Your task to perform on an android device: check android version Image 0: 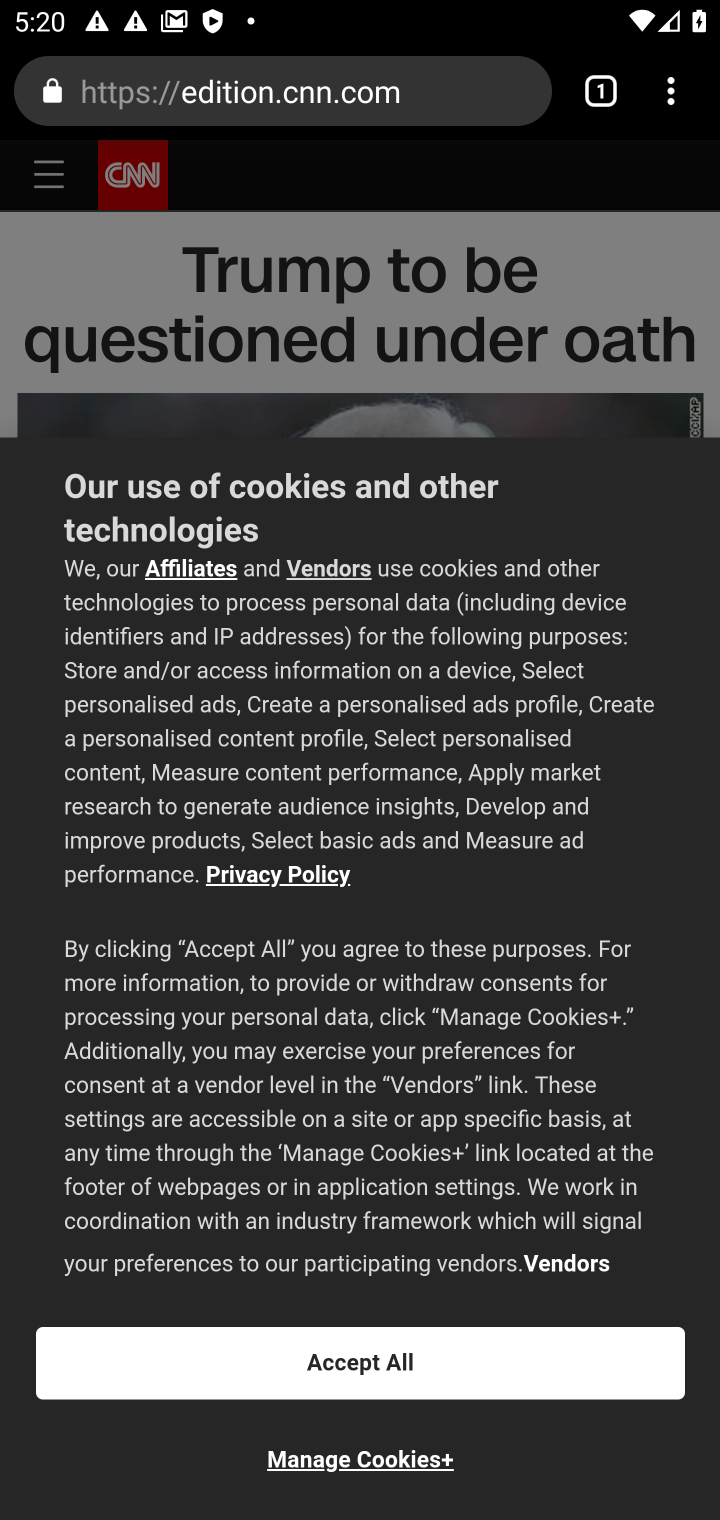
Step 0: press home button
Your task to perform on an android device: check android version Image 1: 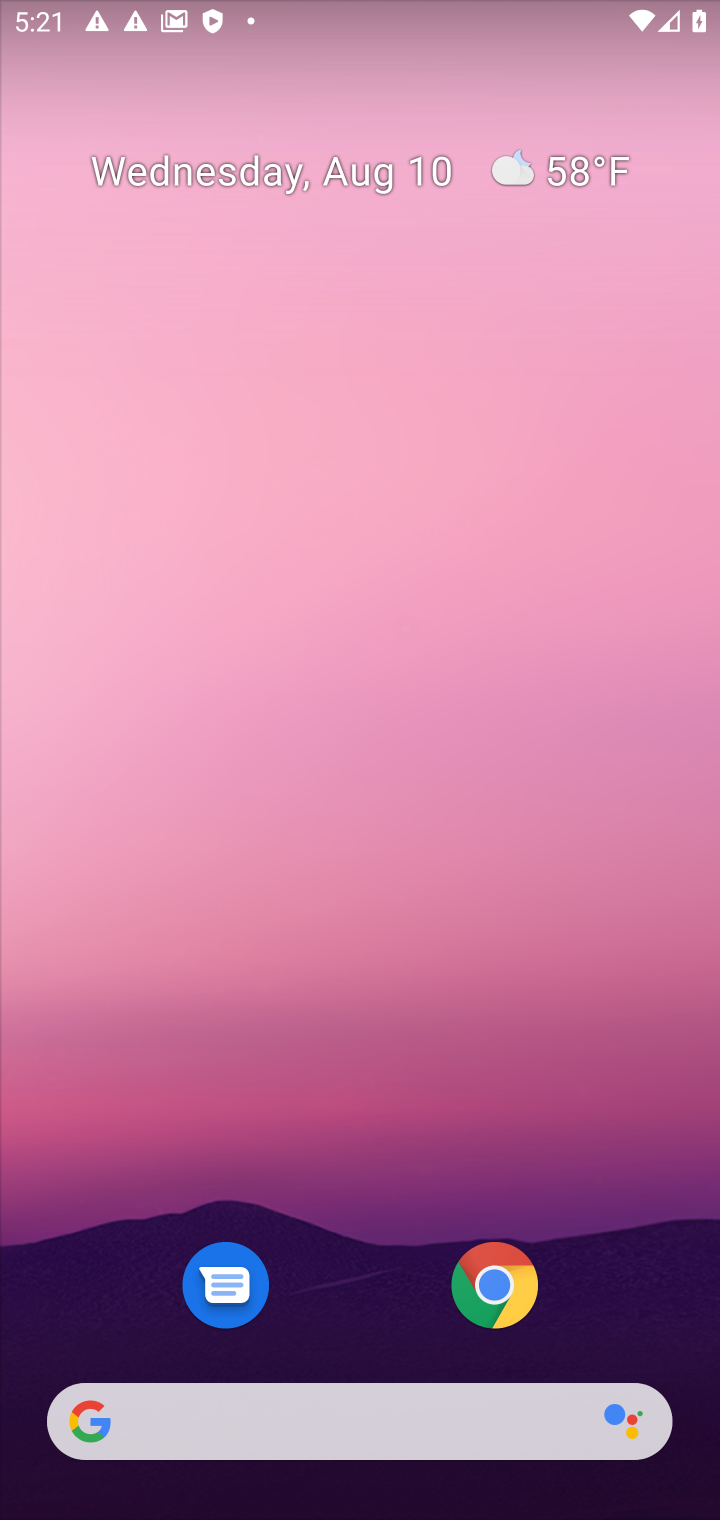
Step 1: press home button
Your task to perform on an android device: check android version Image 2: 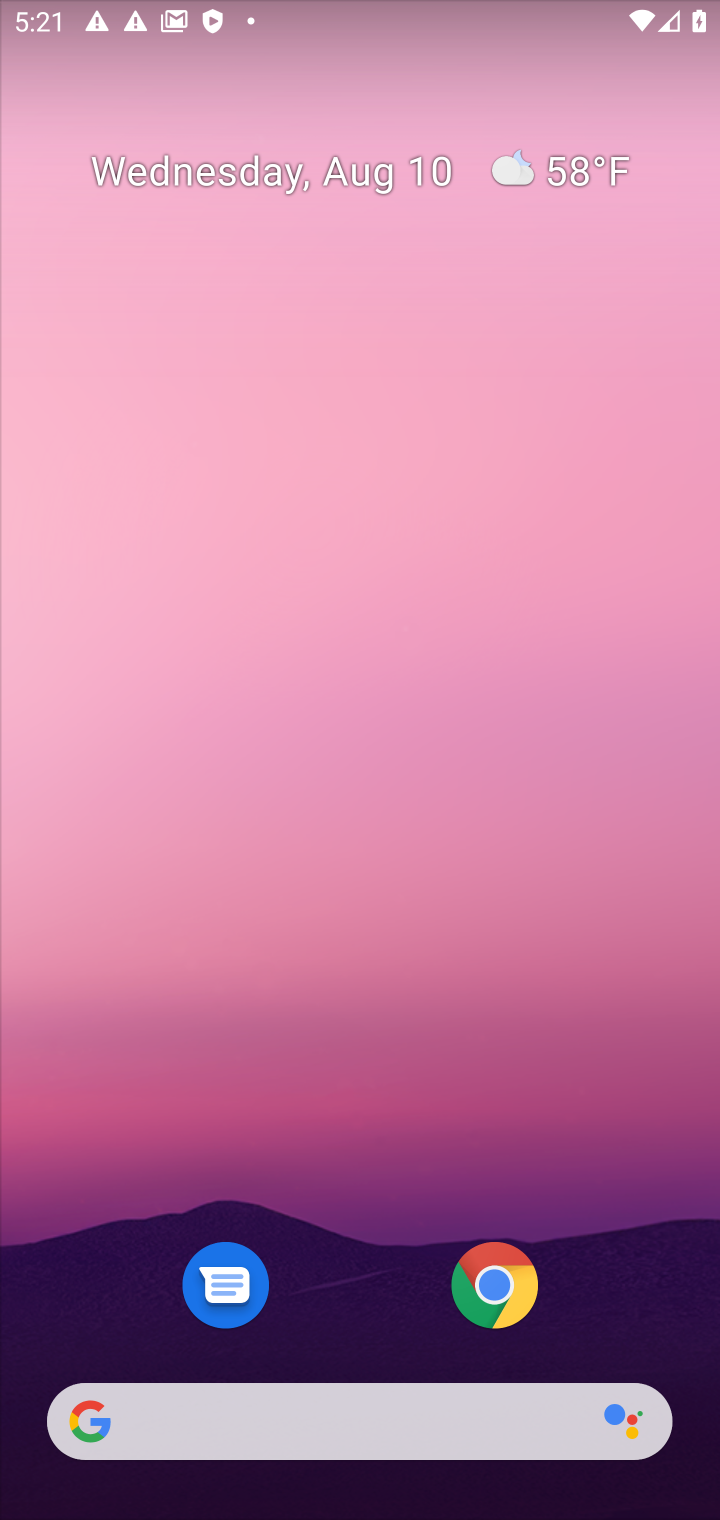
Step 2: drag from (364, 1211) to (431, 18)
Your task to perform on an android device: check android version Image 3: 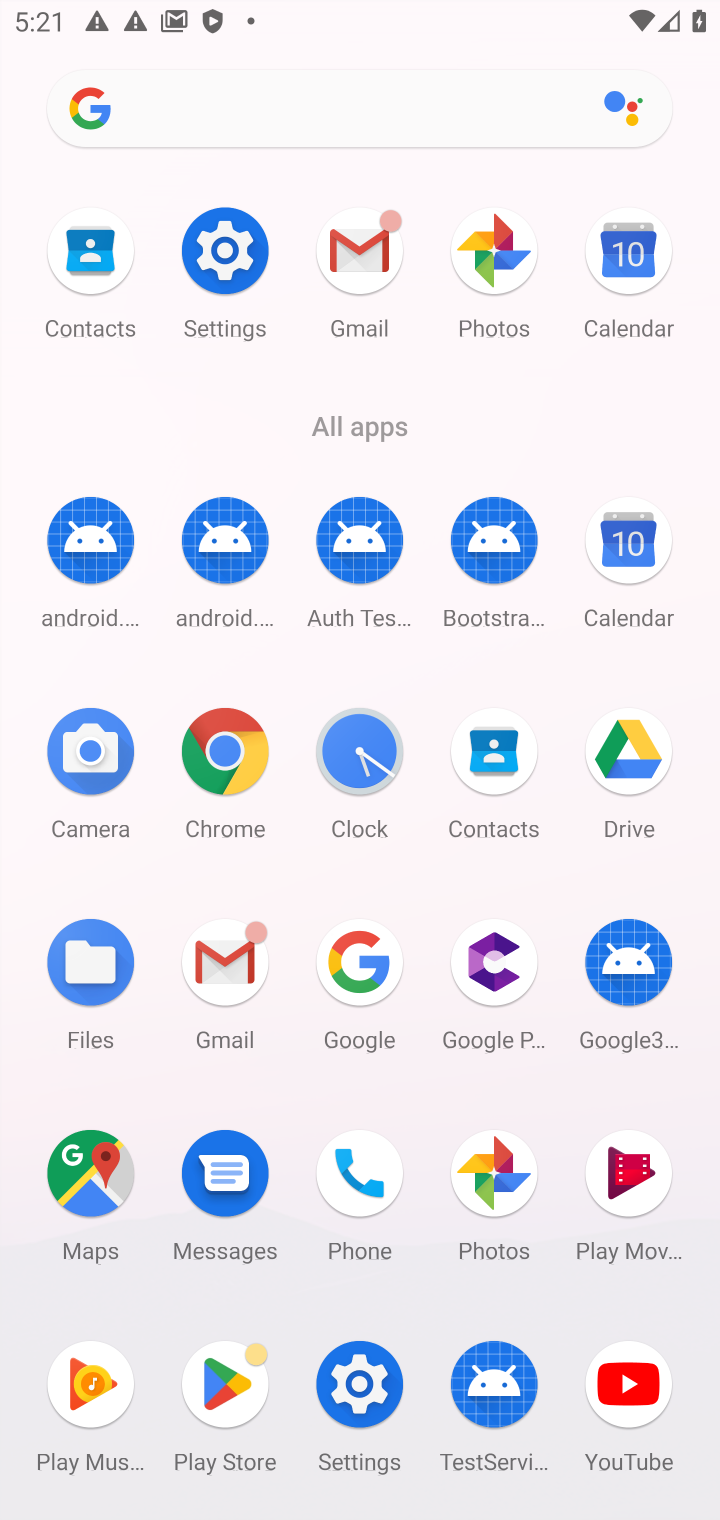
Step 3: click (391, 1354)
Your task to perform on an android device: check android version Image 4: 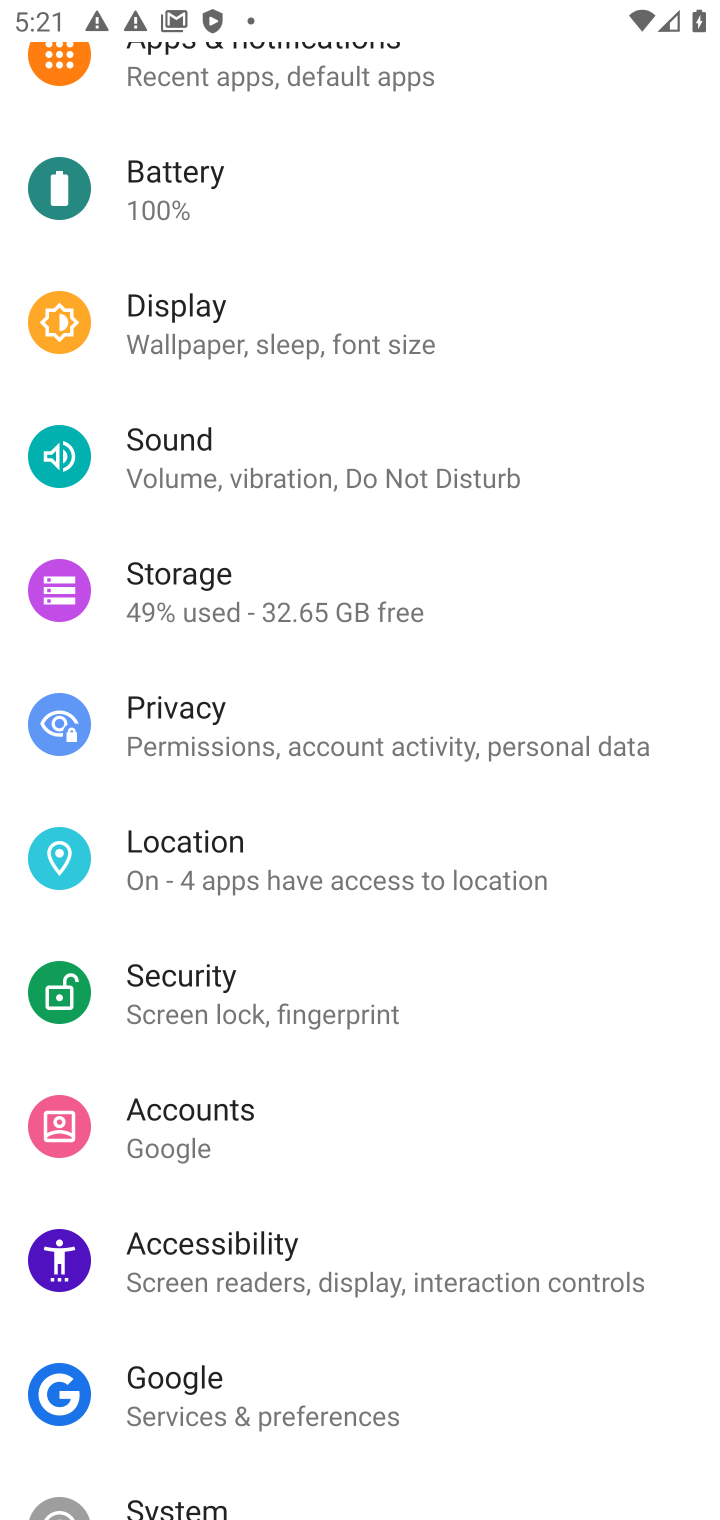
Step 4: drag from (303, 1245) to (311, 142)
Your task to perform on an android device: check android version Image 5: 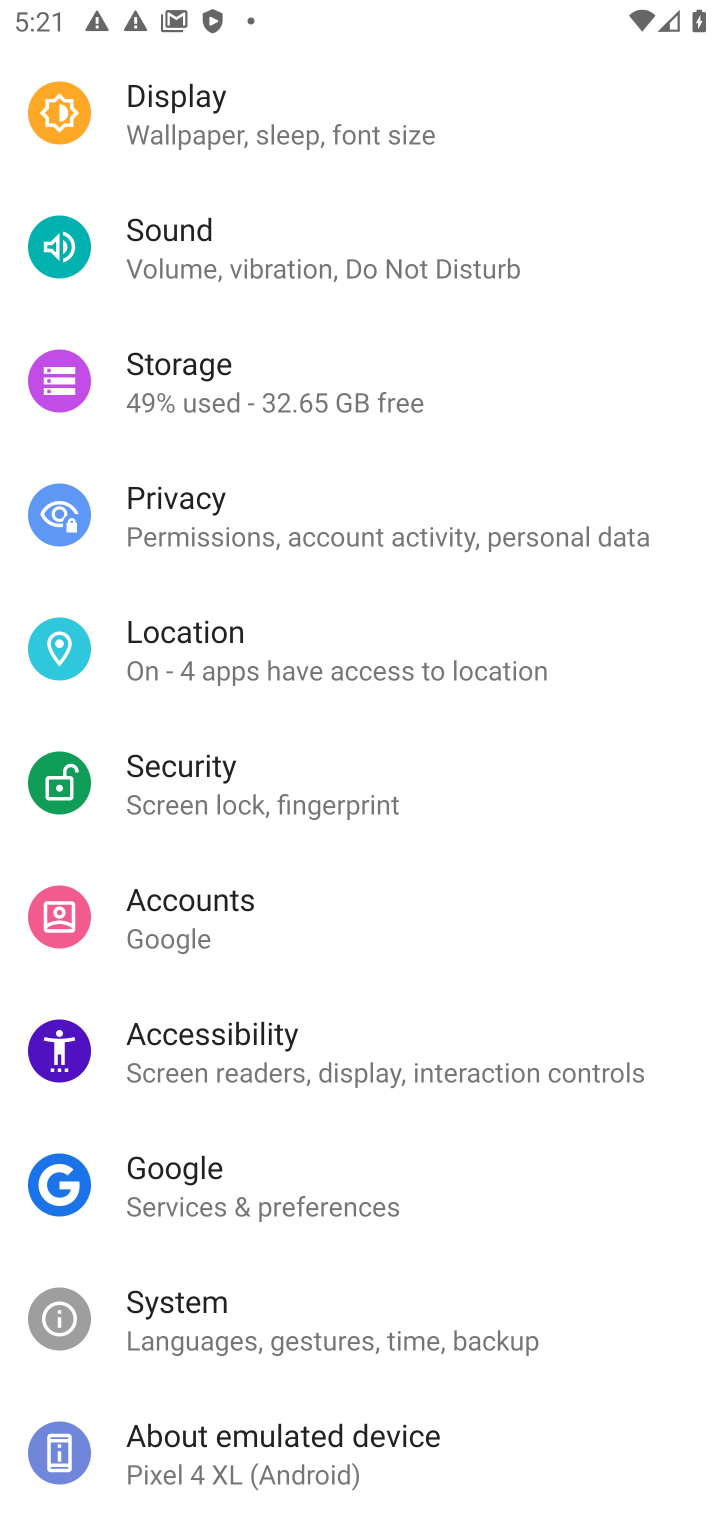
Step 5: click (332, 1440)
Your task to perform on an android device: check android version Image 6: 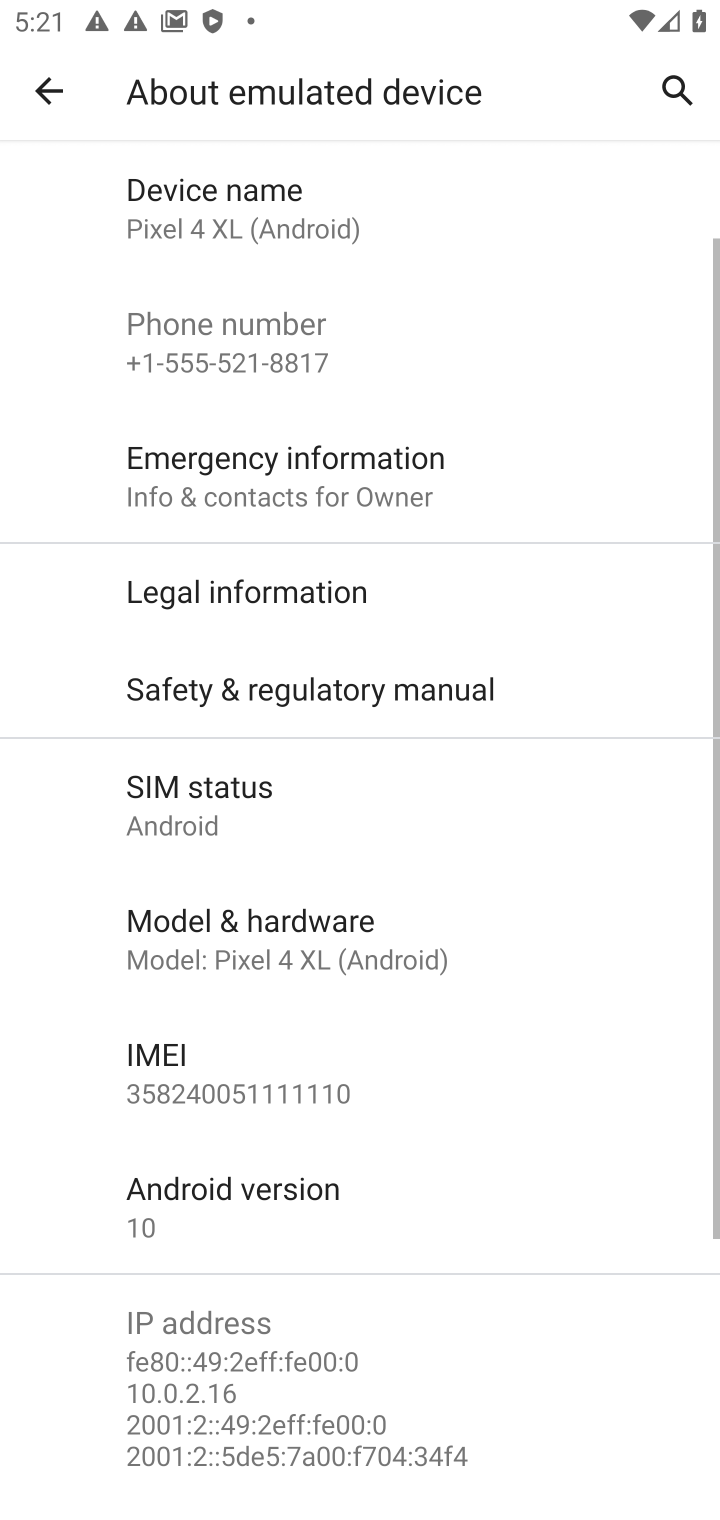
Step 6: click (194, 1218)
Your task to perform on an android device: check android version Image 7: 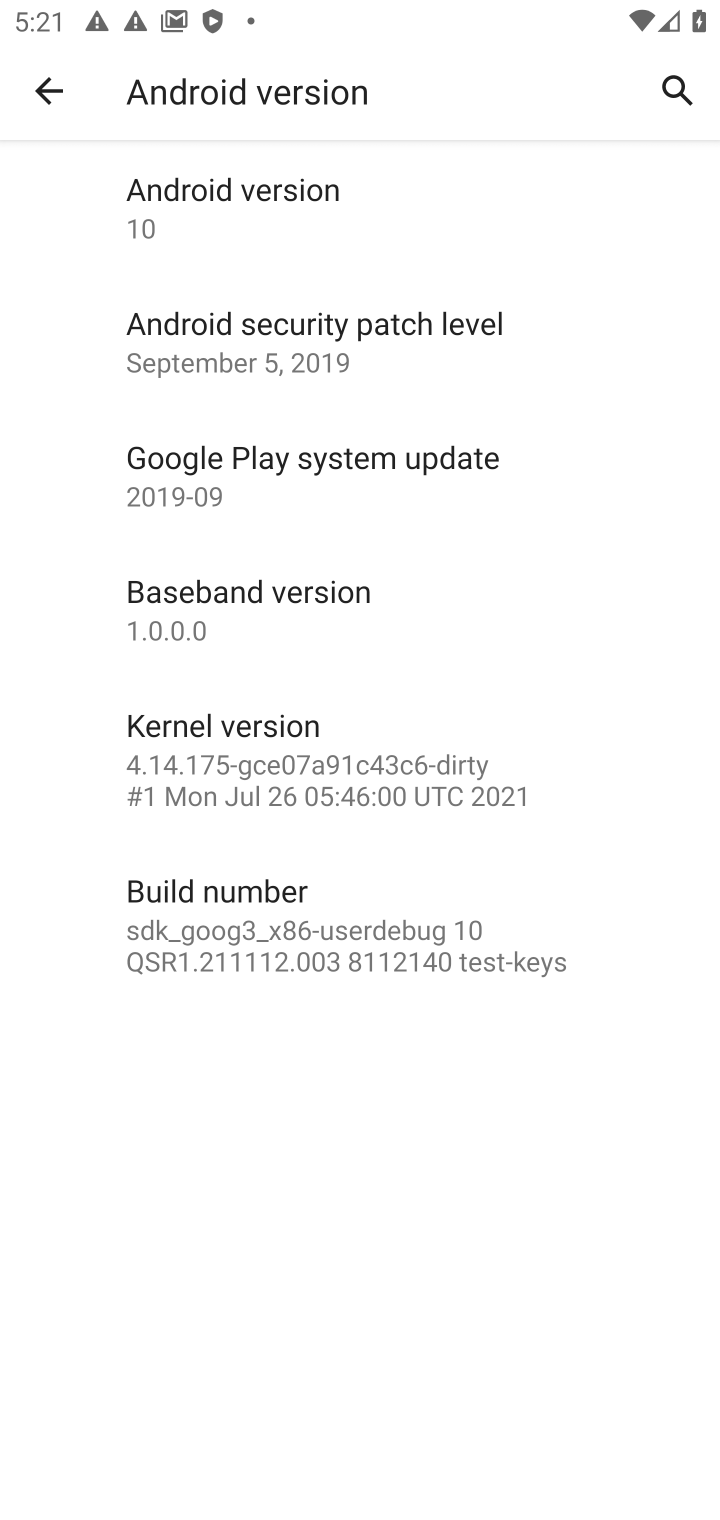
Step 7: task complete